Your task to perform on an android device: Go to accessibility settings Image 0: 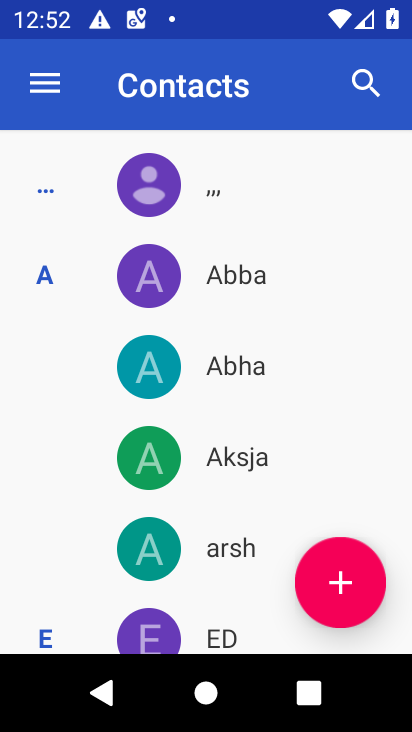
Step 0: press home button
Your task to perform on an android device: Go to accessibility settings Image 1: 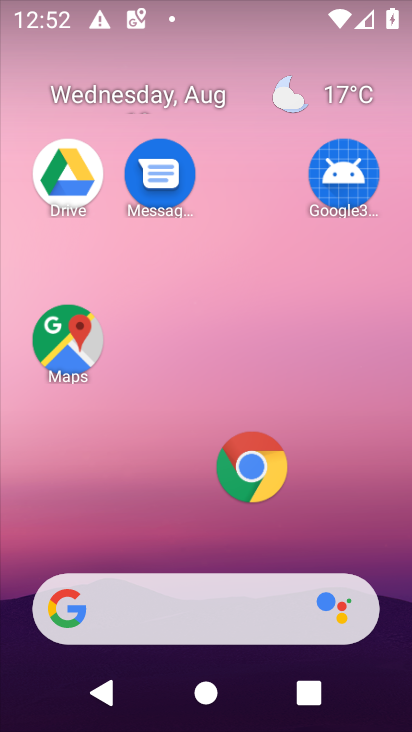
Step 1: drag from (180, 261) to (227, 19)
Your task to perform on an android device: Go to accessibility settings Image 2: 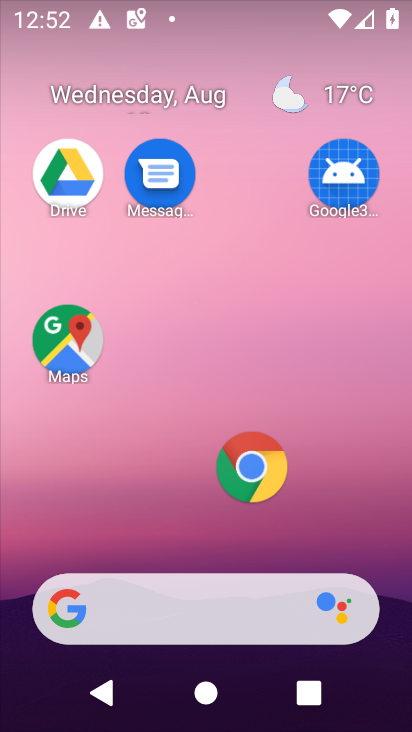
Step 2: drag from (227, 242) to (210, 33)
Your task to perform on an android device: Go to accessibility settings Image 3: 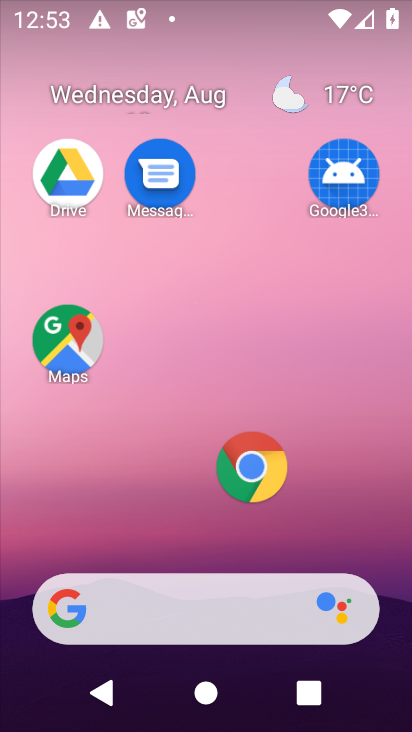
Step 3: drag from (158, 524) to (210, 124)
Your task to perform on an android device: Go to accessibility settings Image 4: 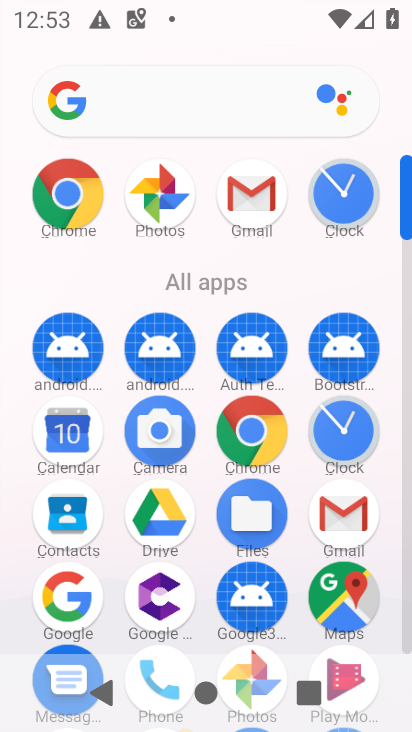
Step 4: drag from (203, 557) to (244, 134)
Your task to perform on an android device: Go to accessibility settings Image 5: 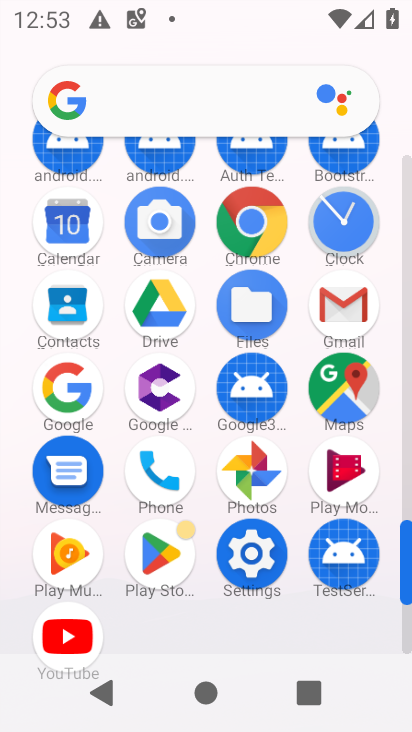
Step 5: drag from (205, 587) to (201, 167)
Your task to perform on an android device: Go to accessibility settings Image 6: 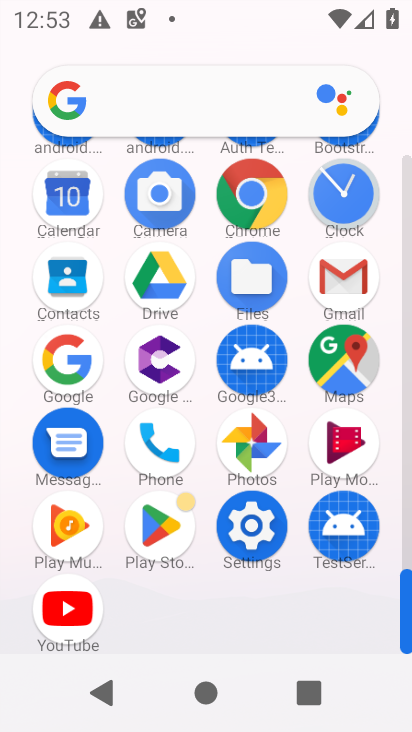
Step 6: click (237, 523)
Your task to perform on an android device: Go to accessibility settings Image 7: 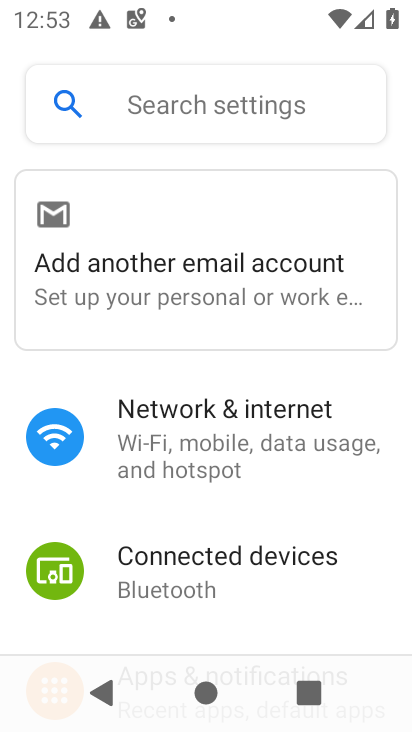
Step 7: drag from (231, 605) to (319, 110)
Your task to perform on an android device: Go to accessibility settings Image 8: 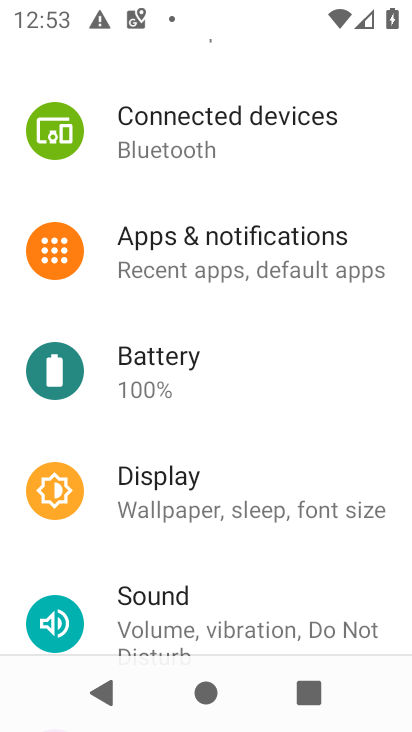
Step 8: drag from (200, 532) to (203, 155)
Your task to perform on an android device: Go to accessibility settings Image 9: 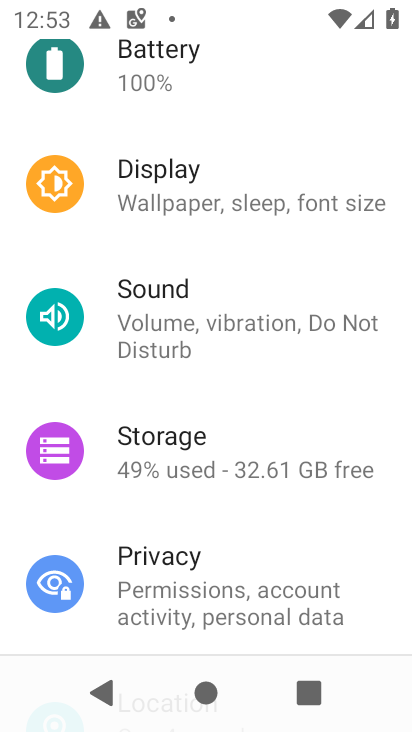
Step 9: drag from (172, 508) to (244, 68)
Your task to perform on an android device: Go to accessibility settings Image 10: 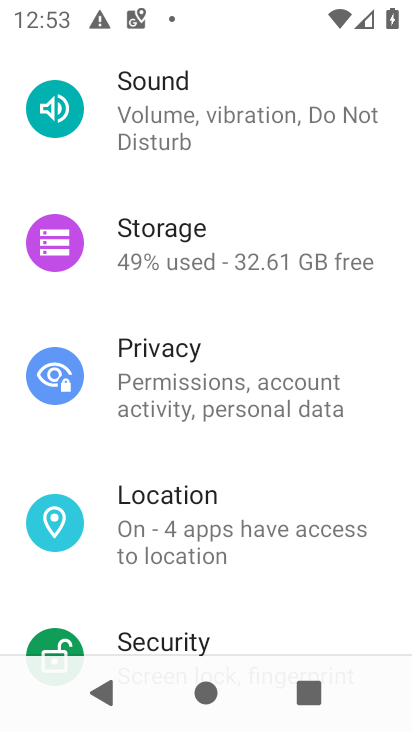
Step 10: drag from (220, 476) to (248, 288)
Your task to perform on an android device: Go to accessibility settings Image 11: 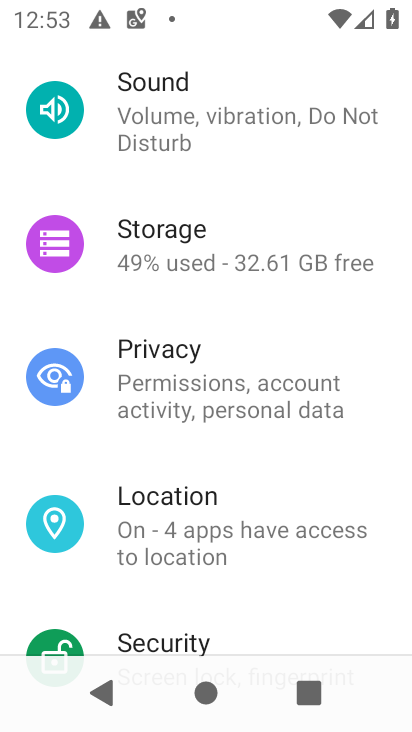
Step 11: drag from (180, 577) to (231, 174)
Your task to perform on an android device: Go to accessibility settings Image 12: 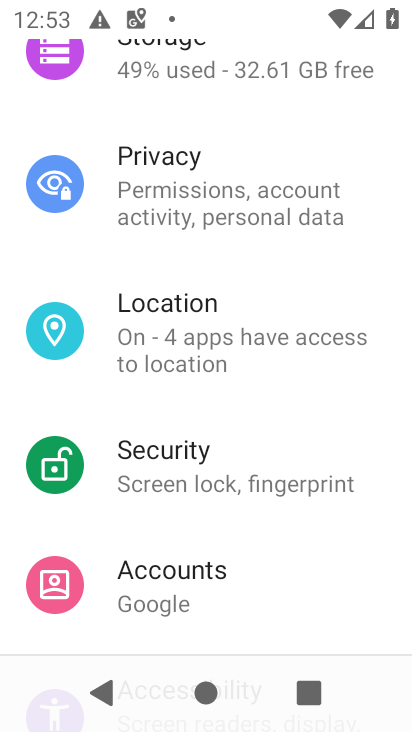
Step 12: drag from (208, 561) to (243, 272)
Your task to perform on an android device: Go to accessibility settings Image 13: 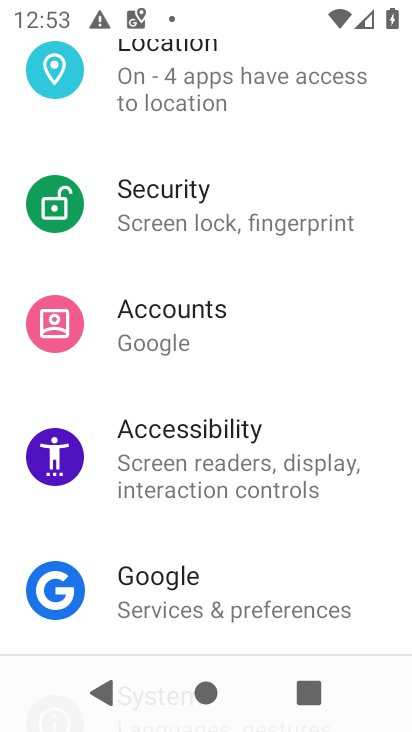
Step 13: click (208, 530)
Your task to perform on an android device: Go to accessibility settings Image 14: 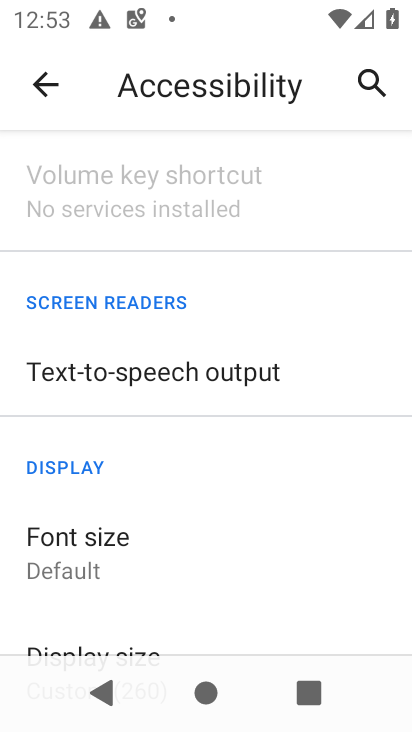
Step 14: task complete